Your task to perform on an android device: open a new tab in the chrome app Image 0: 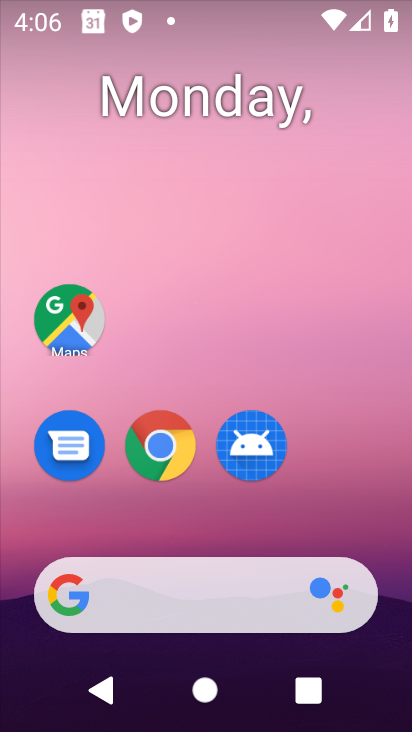
Step 0: drag from (327, 520) to (273, 182)
Your task to perform on an android device: open a new tab in the chrome app Image 1: 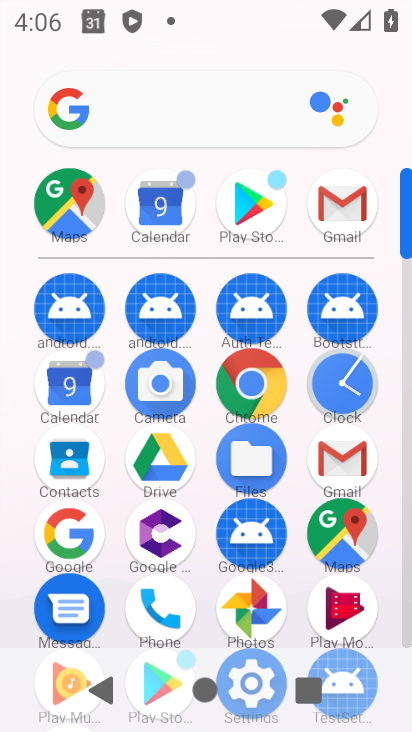
Step 1: click (247, 377)
Your task to perform on an android device: open a new tab in the chrome app Image 2: 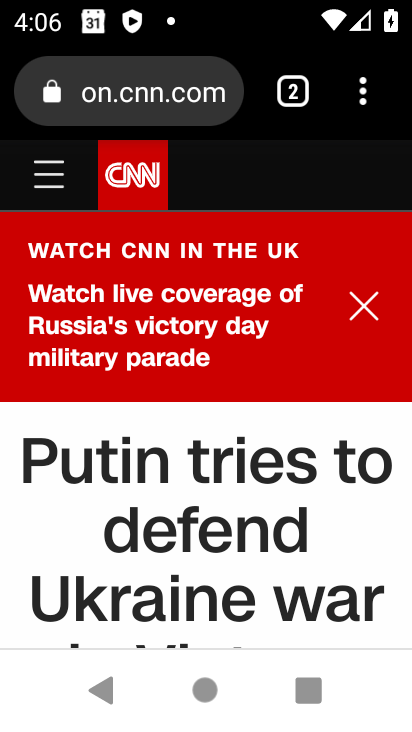
Step 2: task complete